Your task to perform on an android device: Open CNN.com Image 0: 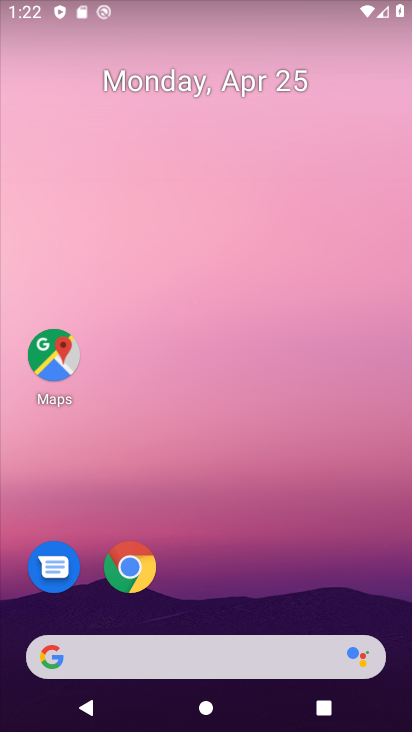
Step 0: click (112, 569)
Your task to perform on an android device: Open CNN.com Image 1: 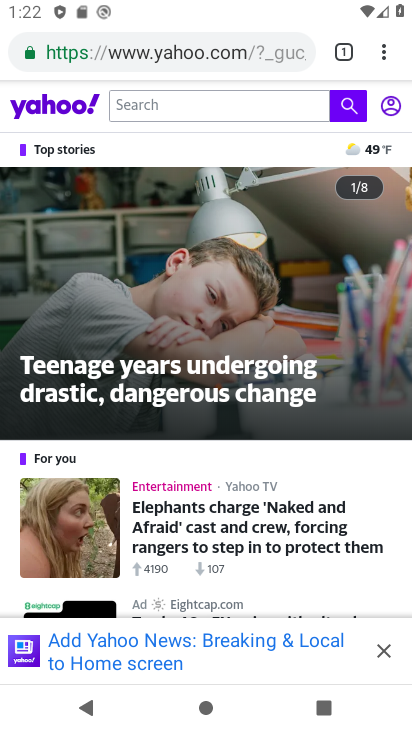
Step 1: click (196, 49)
Your task to perform on an android device: Open CNN.com Image 2: 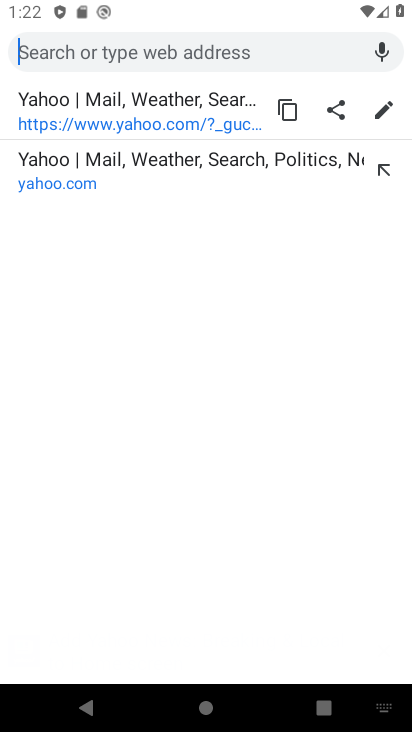
Step 2: type "cnn"
Your task to perform on an android device: Open CNN.com Image 3: 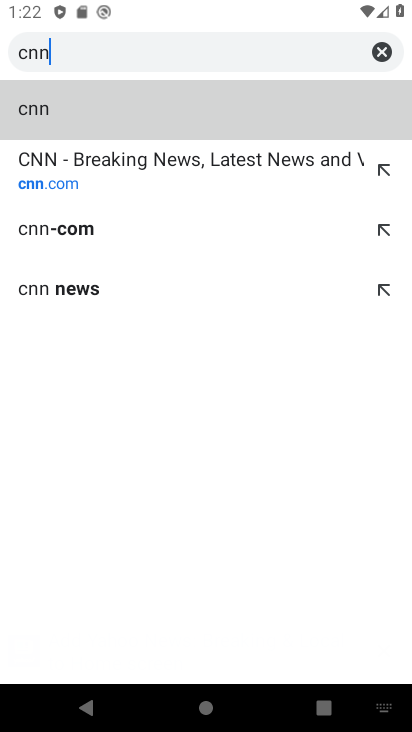
Step 3: click (58, 178)
Your task to perform on an android device: Open CNN.com Image 4: 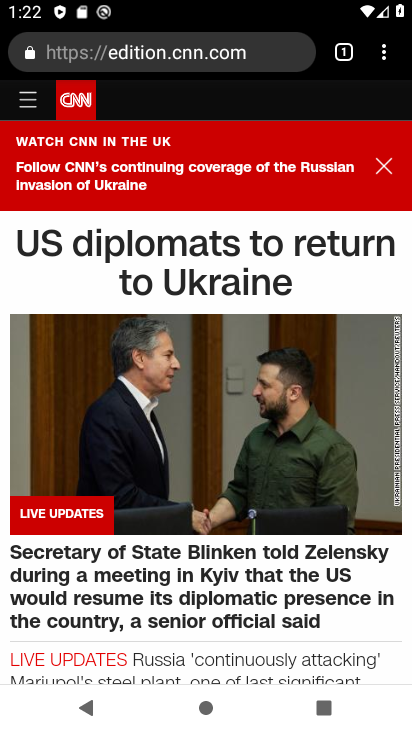
Step 4: task complete